Your task to perform on an android device: set an alarm Image 0: 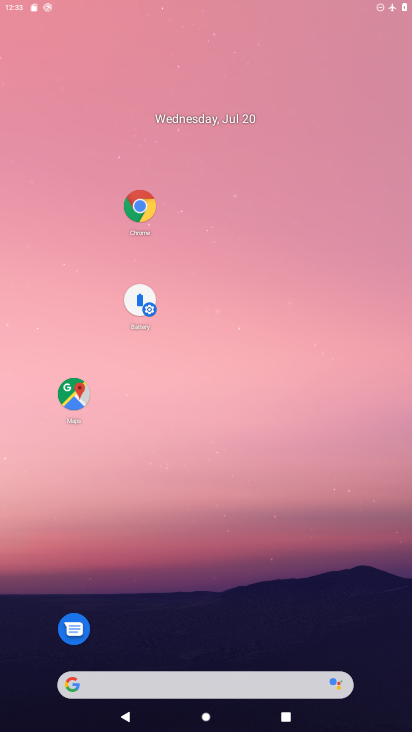
Step 0: click (255, 157)
Your task to perform on an android device: set an alarm Image 1: 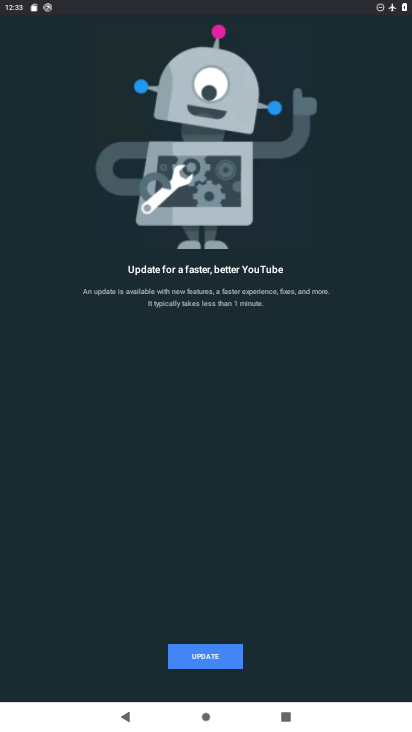
Step 1: press home button
Your task to perform on an android device: set an alarm Image 2: 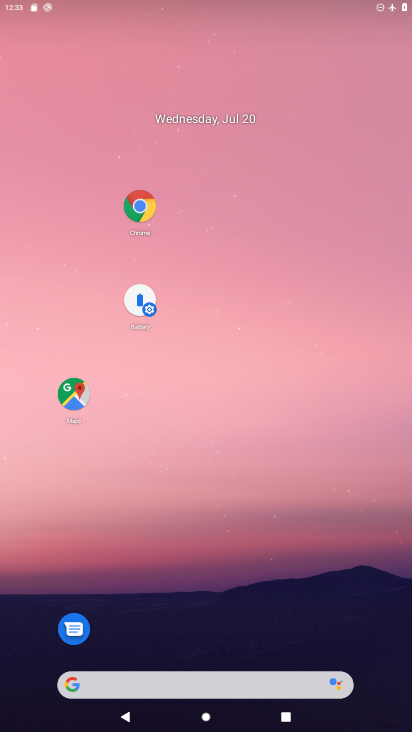
Step 2: drag from (191, 439) to (203, 80)
Your task to perform on an android device: set an alarm Image 3: 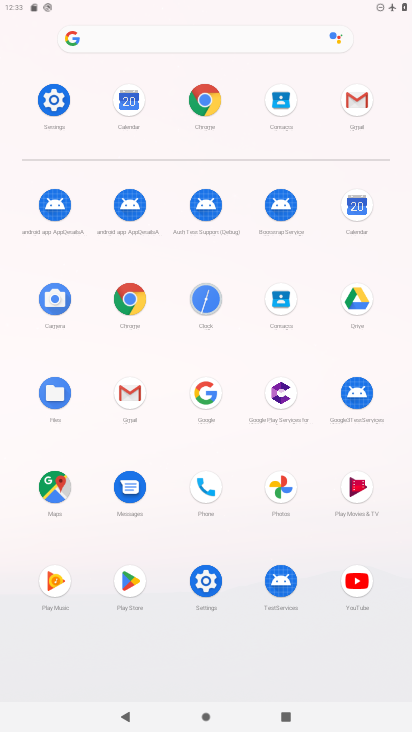
Step 3: click (200, 295)
Your task to perform on an android device: set an alarm Image 4: 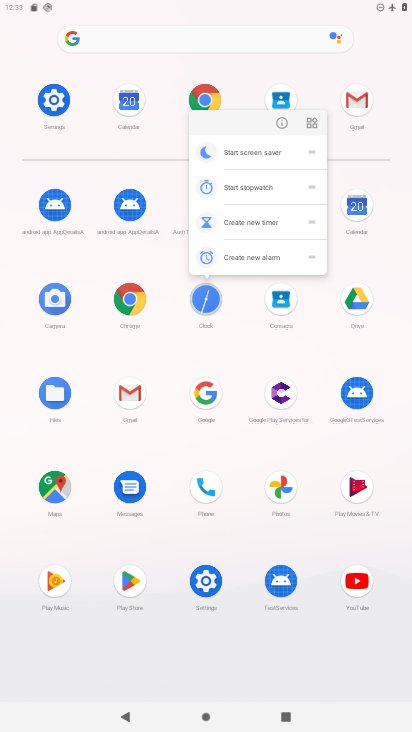
Step 4: click (275, 123)
Your task to perform on an android device: set an alarm Image 5: 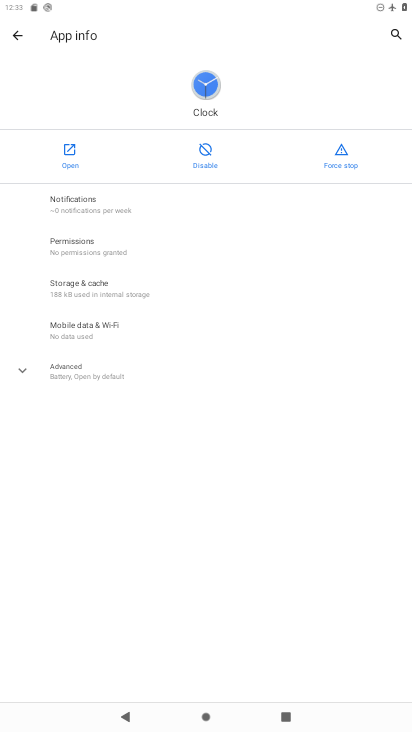
Step 5: click (66, 154)
Your task to perform on an android device: set an alarm Image 6: 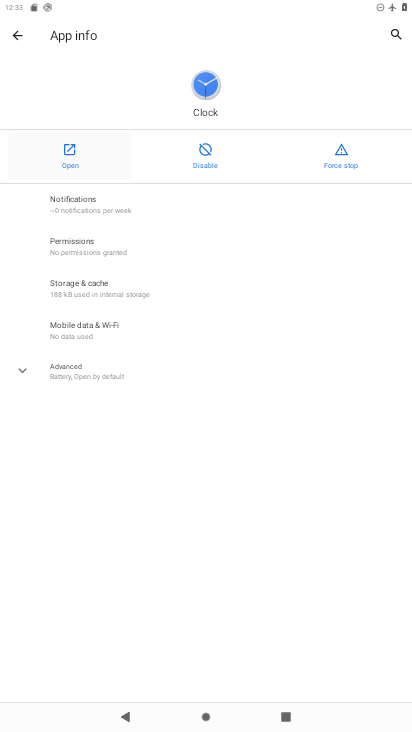
Step 6: click (66, 154)
Your task to perform on an android device: set an alarm Image 7: 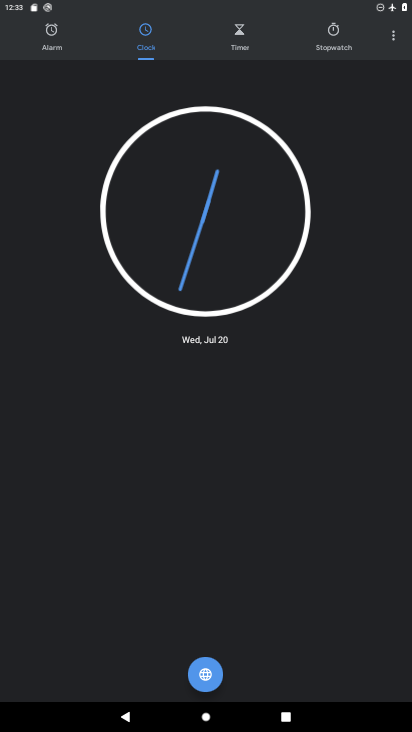
Step 7: click (54, 43)
Your task to perform on an android device: set an alarm Image 8: 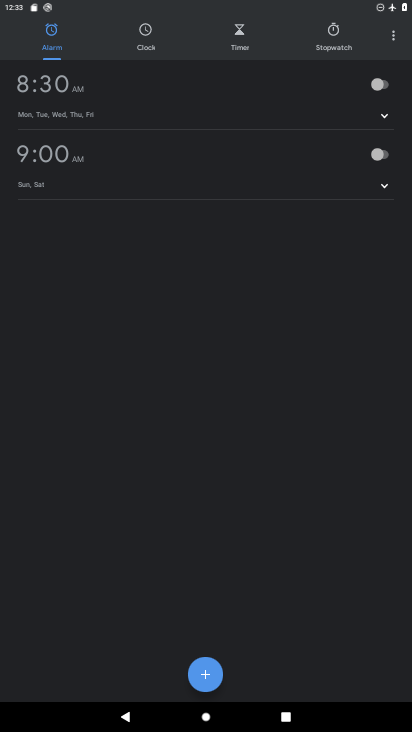
Step 8: task complete